Your task to perform on an android device: Open notification settings Image 0: 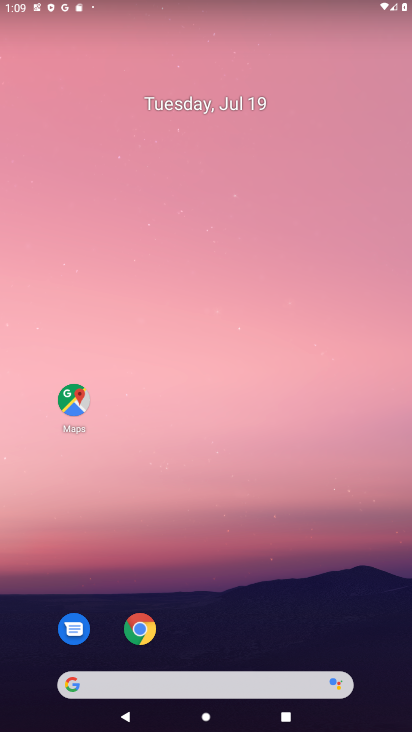
Step 0: drag from (185, 537) to (310, 25)
Your task to perform on an android device: Open notification settings Image 1: 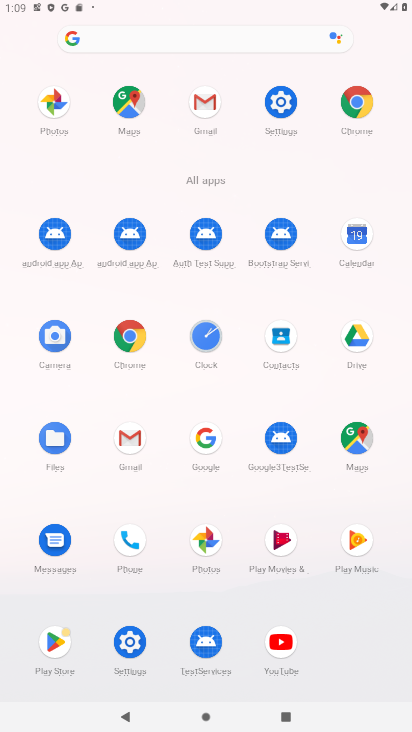
Step 1: click (126, 651)
Your task to perform on an android device: Open notification settings Image 2: 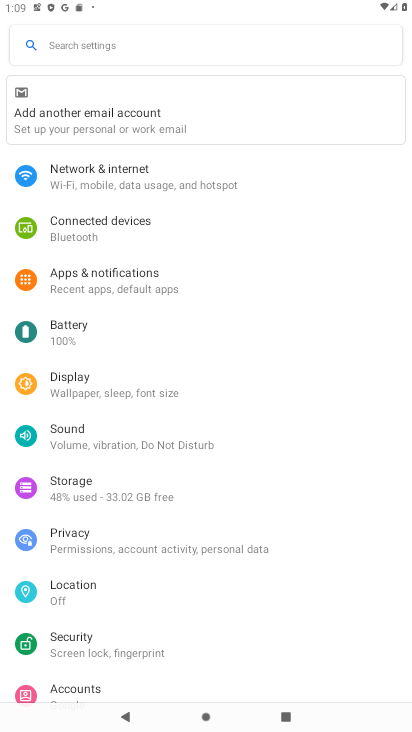
Step 2: click (132, 289)
Your task to perform on an android device: Open notification settings Image 3: 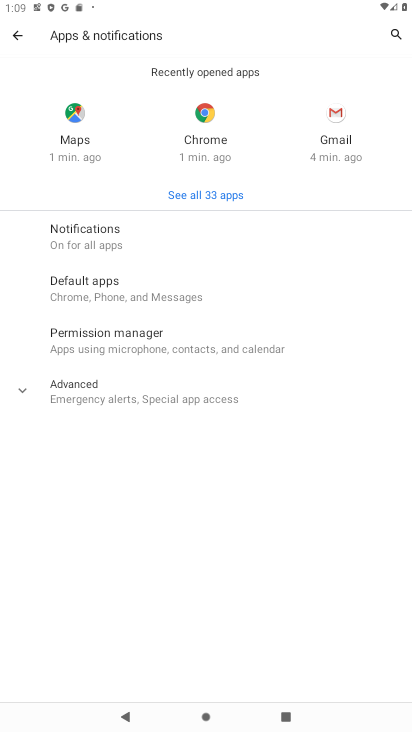
Step 3: click (93, 240)
Your task to perform on an android device: Open notification settings Image 4: 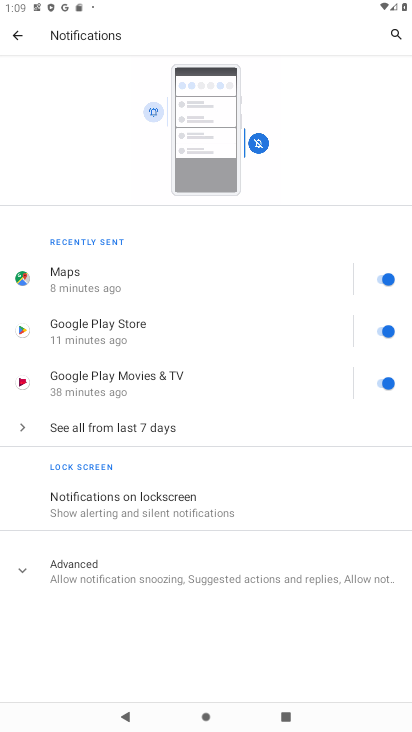
Step 4: task complete